Your task to perform on an android device: open the mobile data screen to see how much data has been used Image 0: 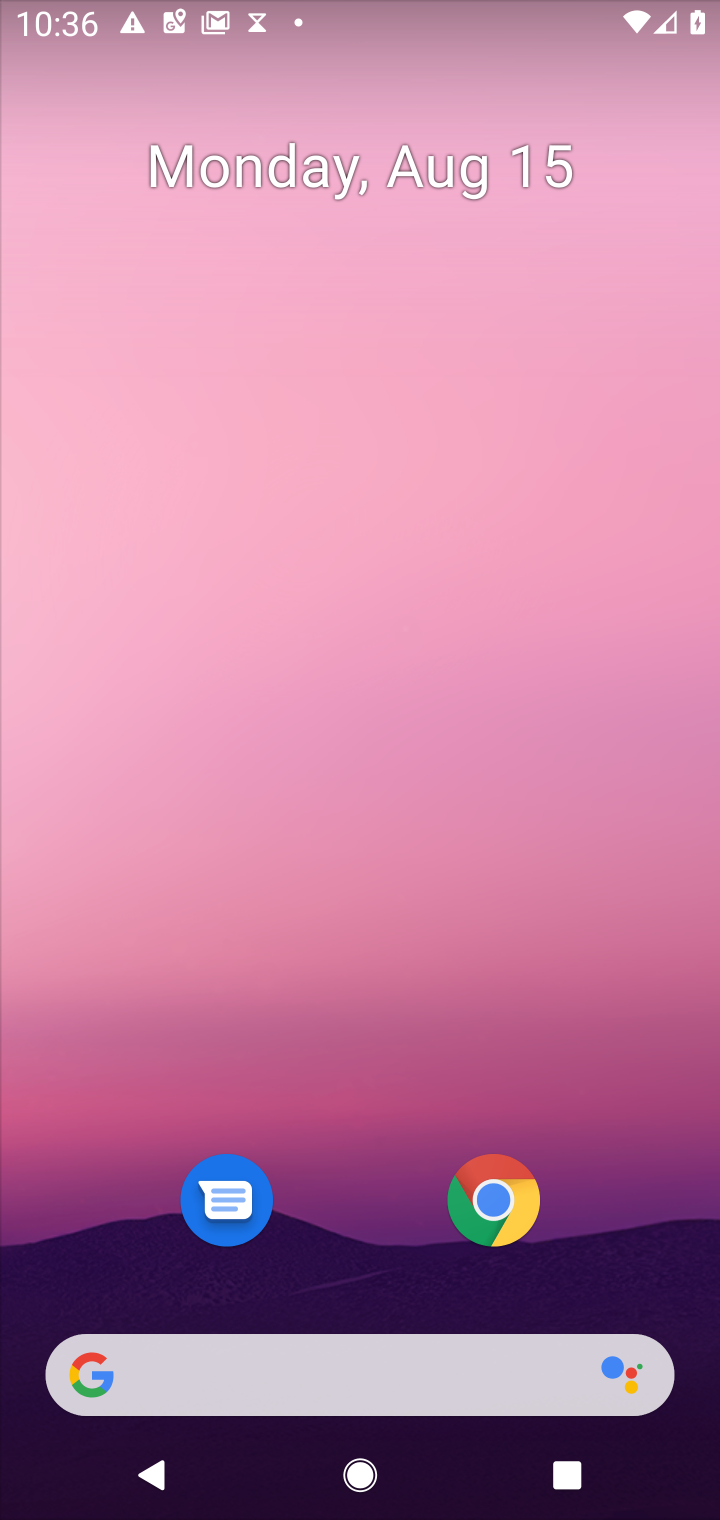
Step 0: drag from (363, 983) to (358, 287)
Your task to perform on an android device: open the mobile data screen to see how much data has been used Image 1: 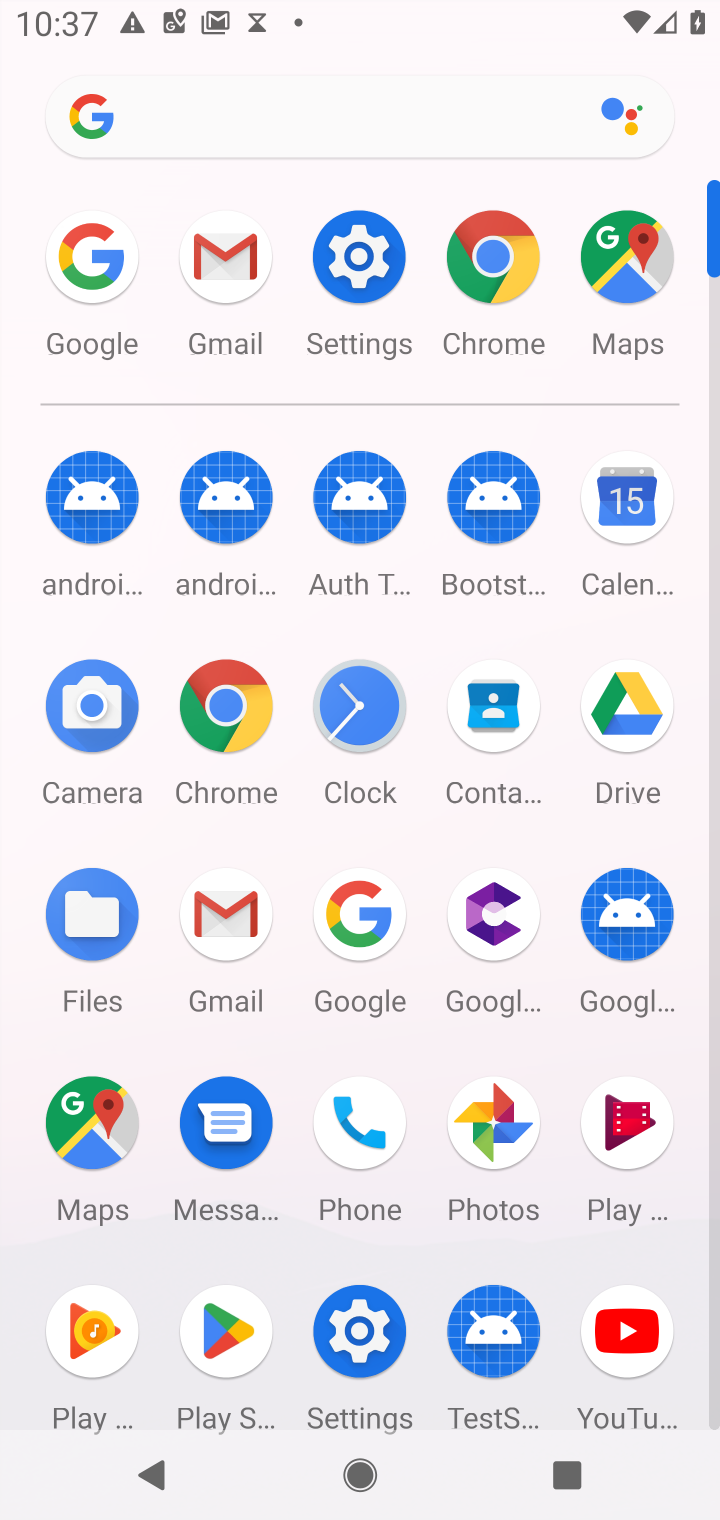
Step 1: click (341, 273)
Your task to perform on an android device: open the mobile data screen to see how much data has been used Image 2: 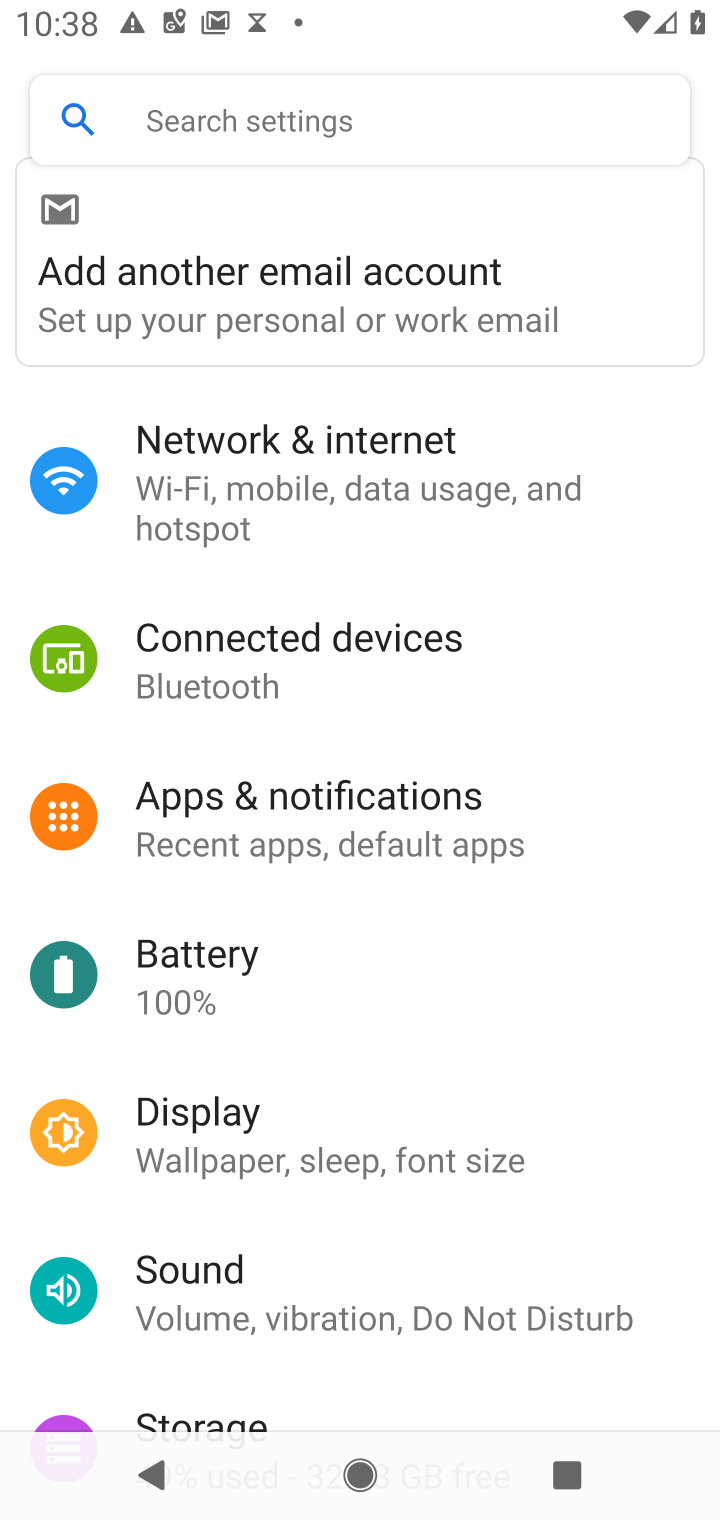
Step 2: click (297, 470)
Your task to perform on an android device: open the mobile data screen to see how much data has been used Image 3: 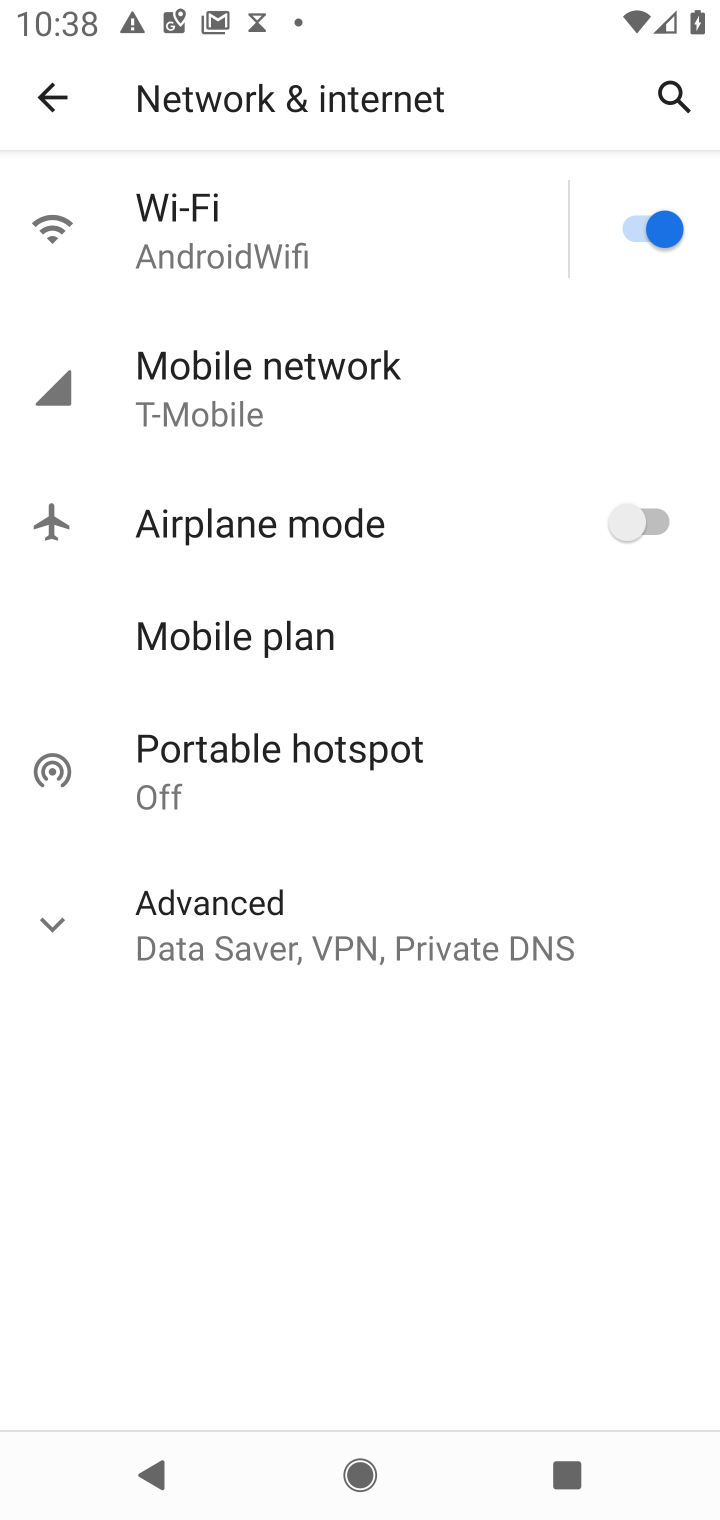
Step 3: click (324, 425)
Your task to perform on an android device: open the mobile data screen to see how much data has been used Image 4: 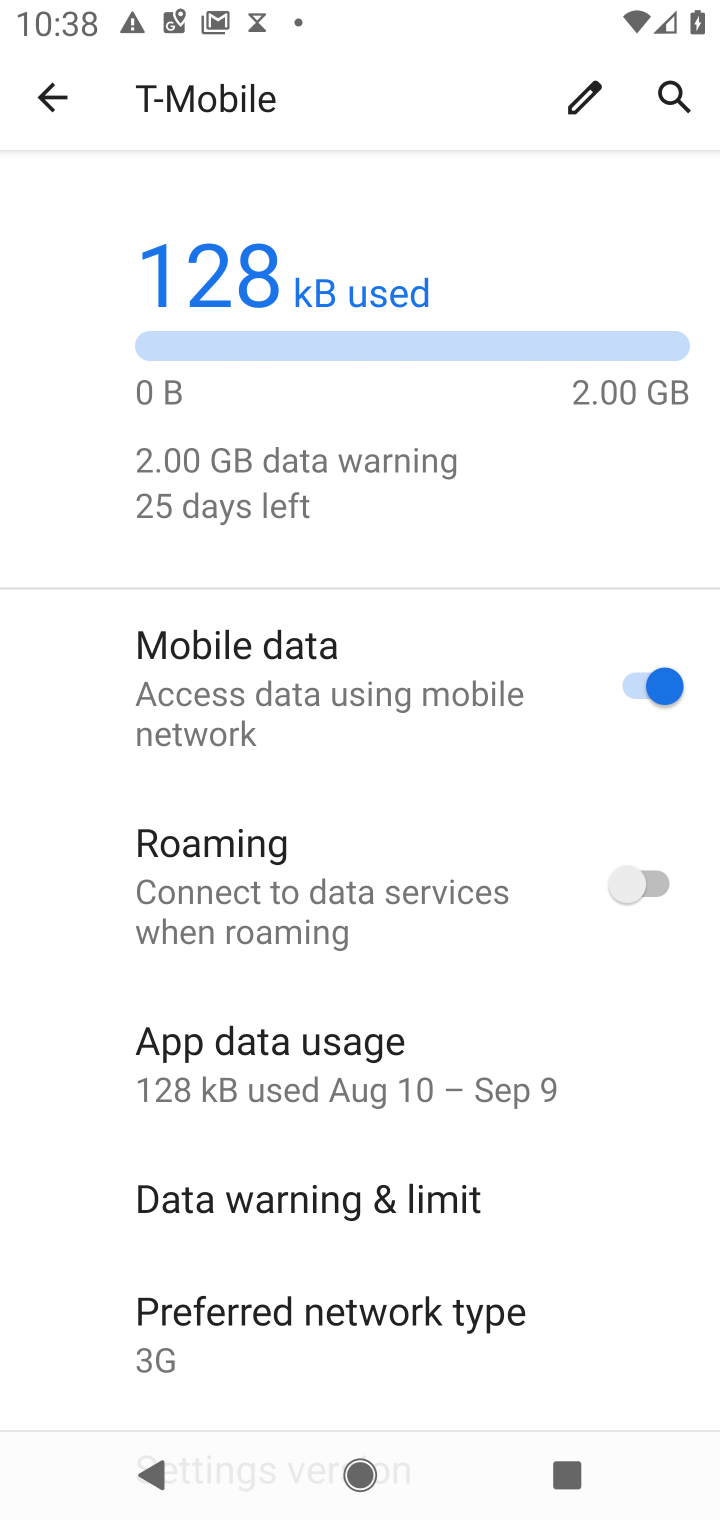
Step 4: click (445, 1076)
Your task to perform on an android device: open the mobile data screen to see how much data has been used Image 5: 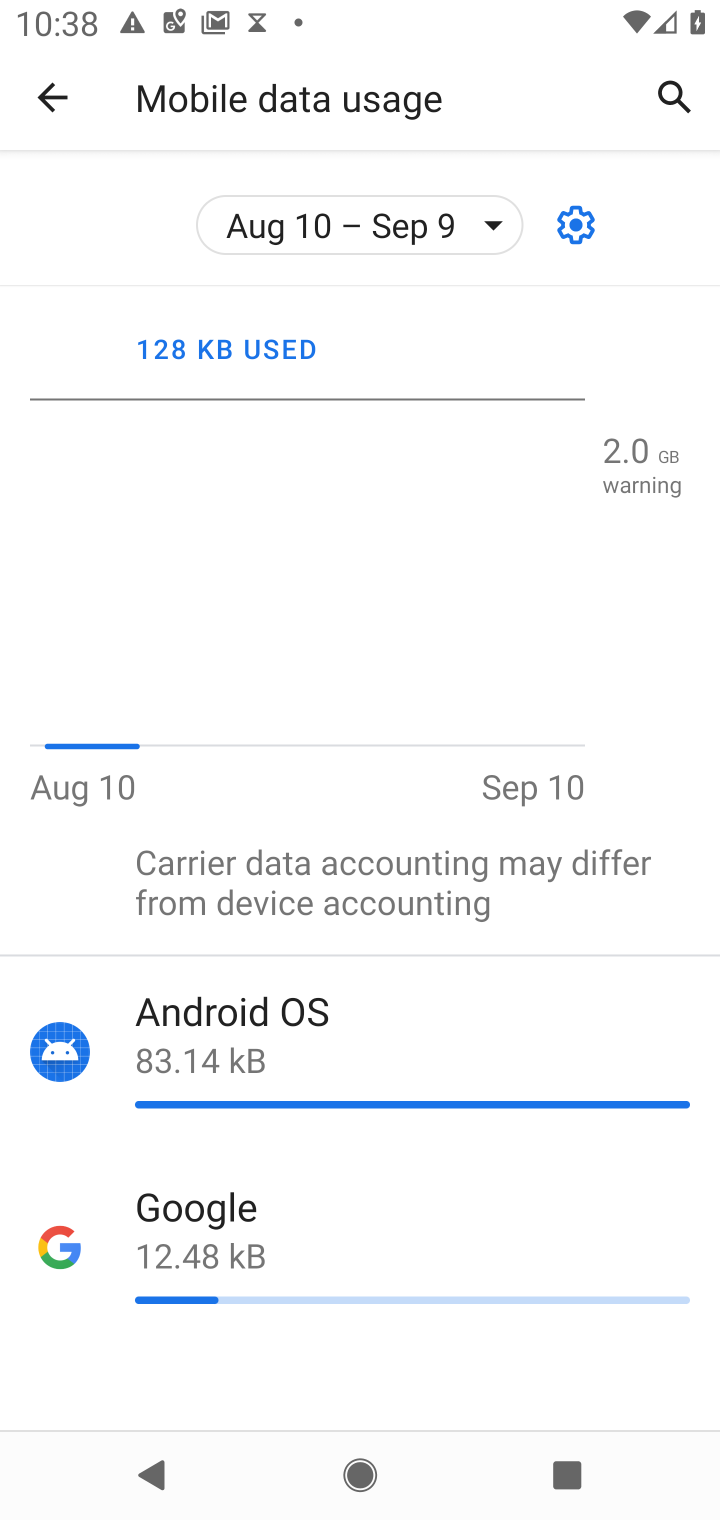
Step 5: task complete